Your task to perform on an android device: Go to battery settings Image 0: 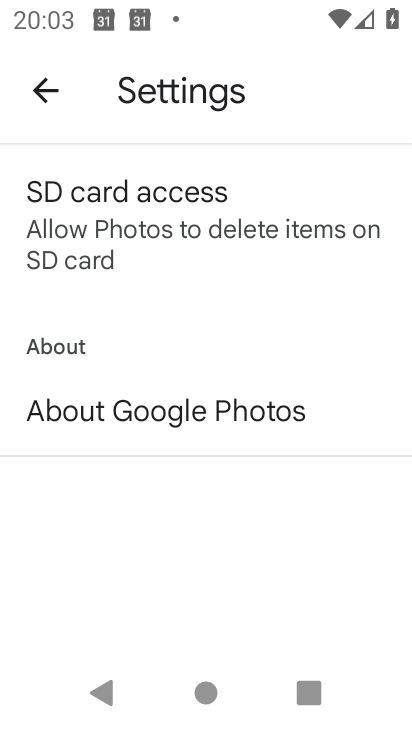
Step 0: press home button
Your task to perform on an android device: Go to battery settings Image 1: 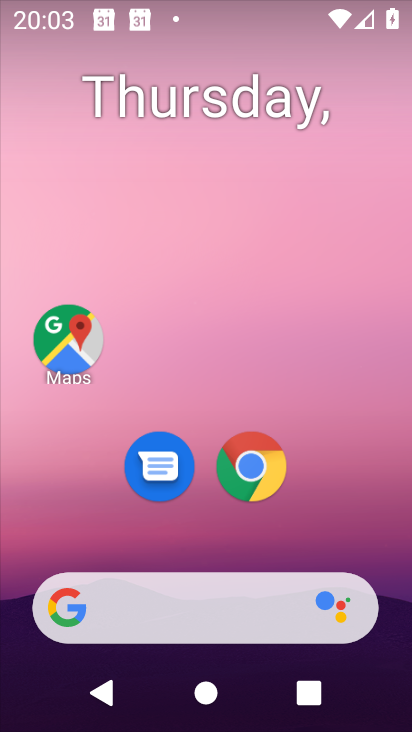
Step 1: drag from (343, 515) to (341, 203)
Your task to perform on an android device: Go to battery settings Image 2: 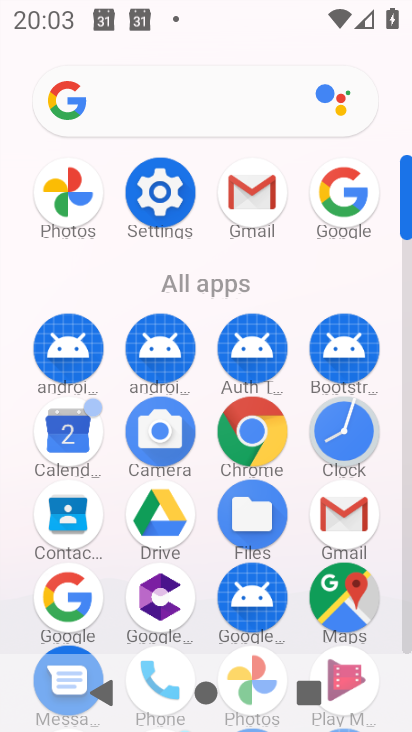
Step 2: click (139, 198)
Your task to perform on an android device: Go to battery settings Image 3: 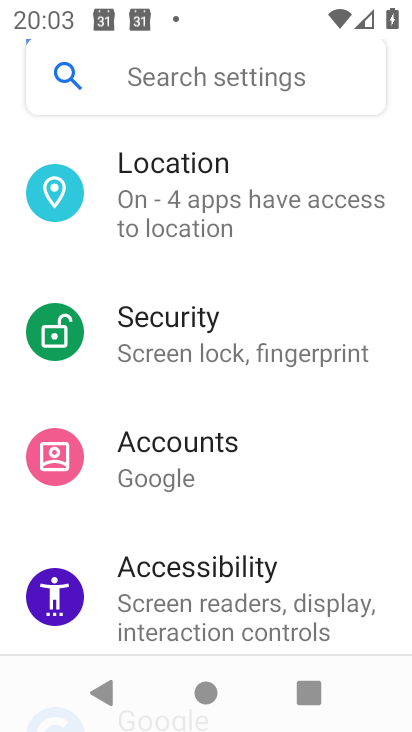
Step 3: drag from (313, 265) to (308, 549)
Your task to perform on an android device: Go to battery settings Image 4: 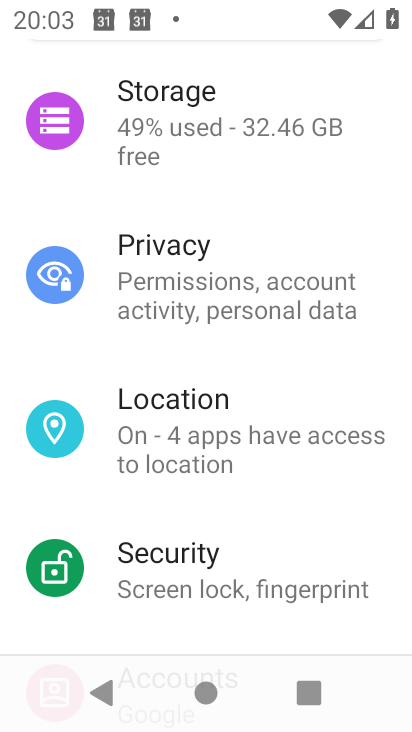
Step 4: drag from (320, 609) to (277, 34)
Your task to perform on an android device: Go to battery settings Image 5: 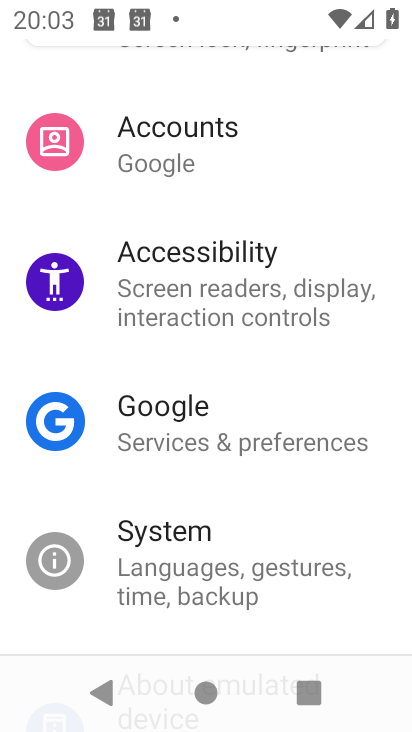
Step 5: drag from (292, 115) to (294, 674)
Your task to perform on an android device: Go to battery settings Image 6: 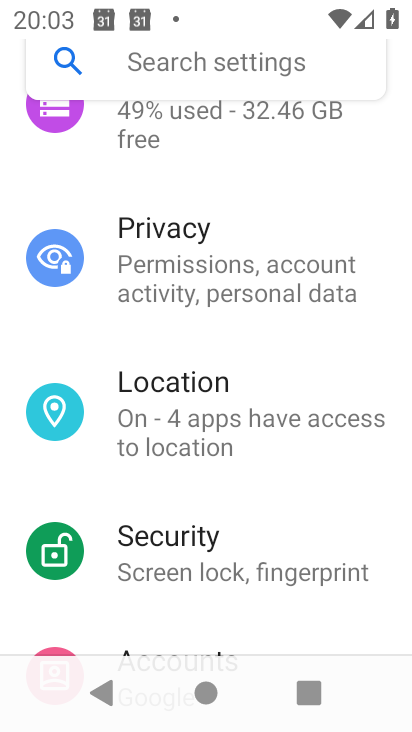
Step 6: drag from (357, 179) to (316, 691)
Your task to perform on an android device: Go to battery settings Image 7: 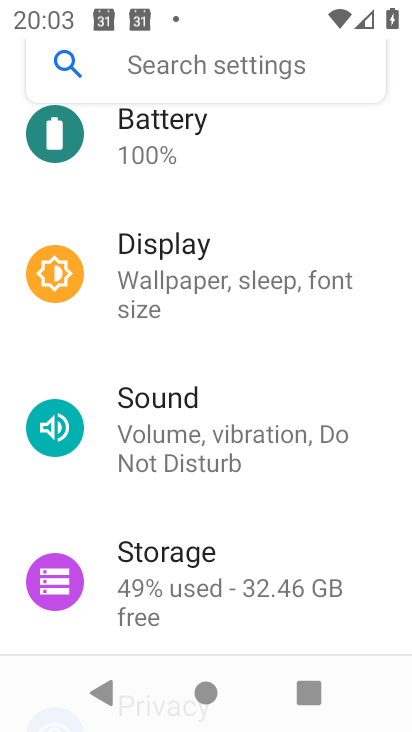
Step 7: click (147, 165)
Your task to perform on an android device: Go to battery settings Image 8: 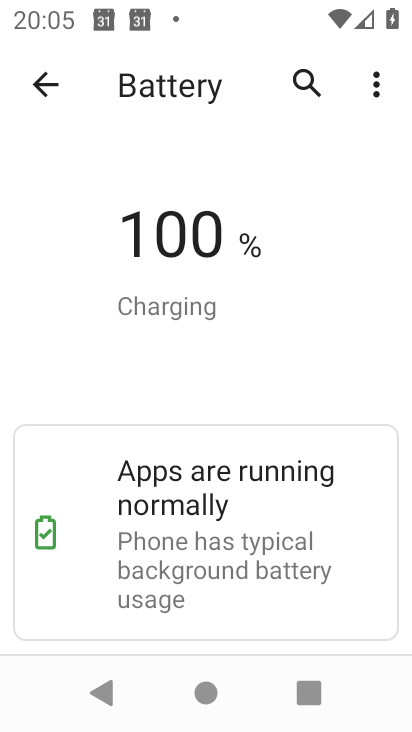
Step 8: task complete